Your task to perform on an android device: How big is the universe? Image 0: 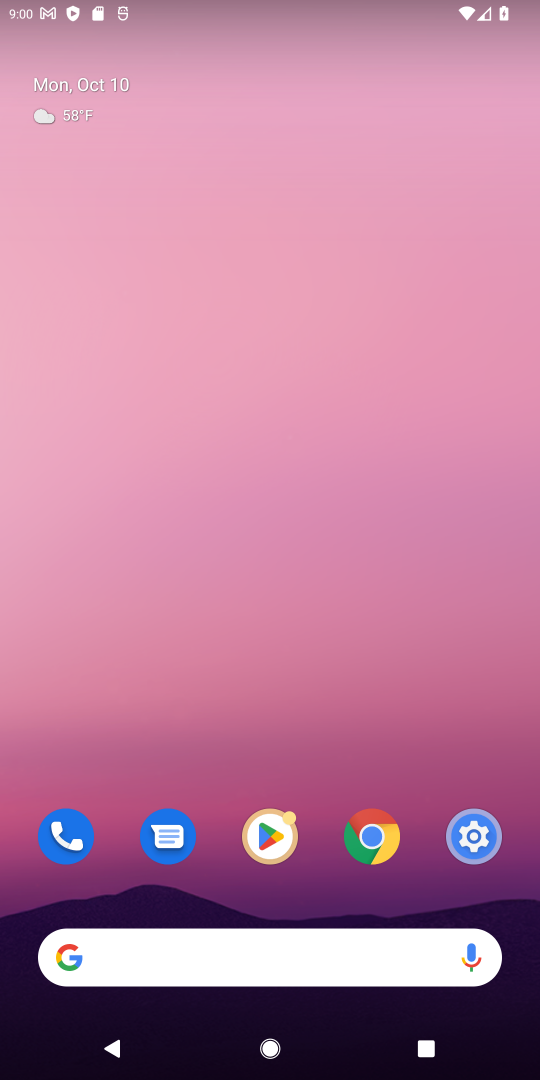
Step 0: drag from (295, 910) to (299, 160)
Your task to perform on an android device: How big is the universe? Image 1: 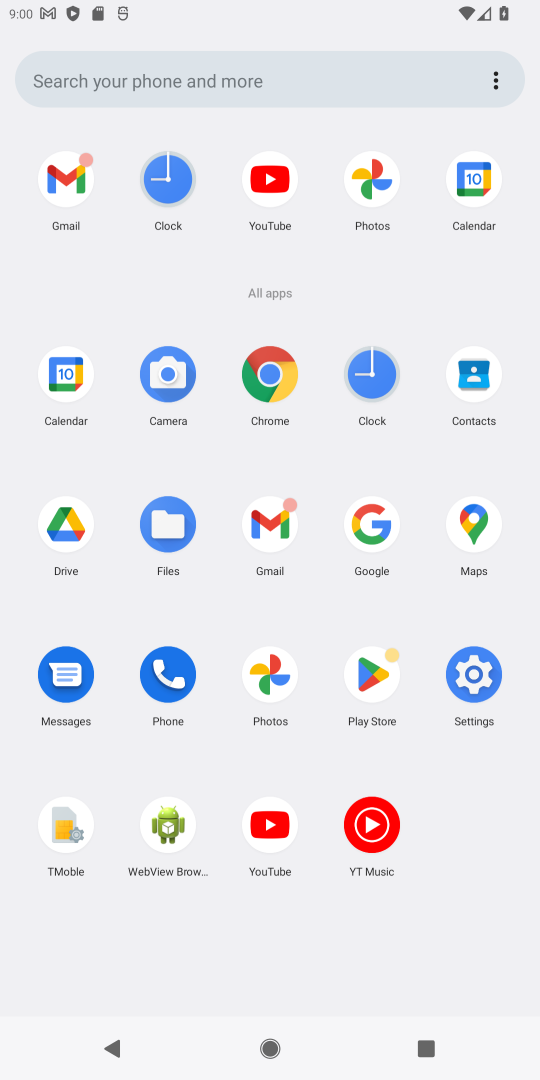
Step 1: drag from (289, 938) to (320, 155)
Your task to perform on an android device: How big is the universe? Image 2: 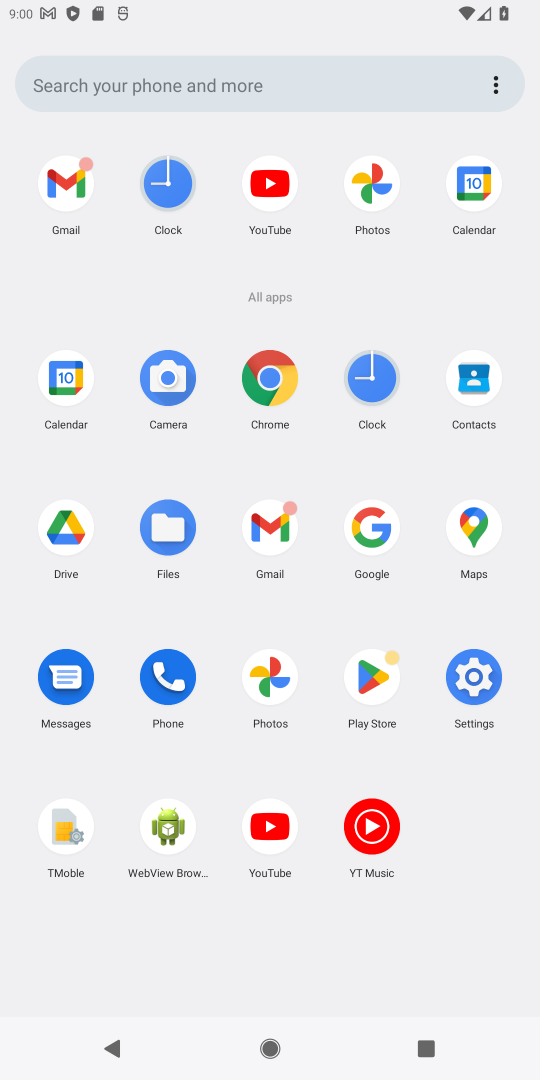
Step 2: click (365, 528)
Your task to perform on an android device: How big is the universe? Image 3: 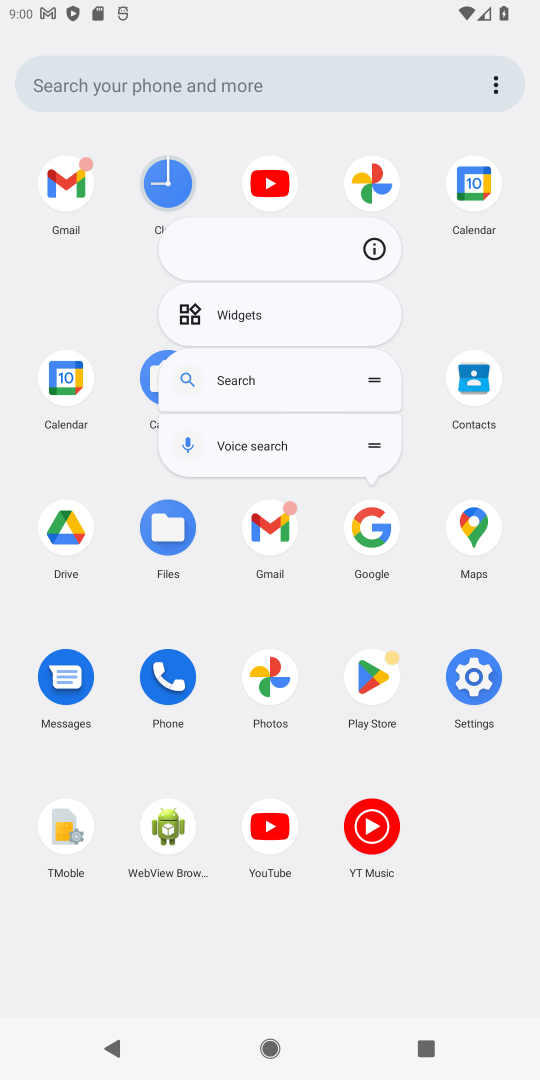
Step 3: click (379, 514)
Your task to perform on an android device: How big is the universe? Image 4: 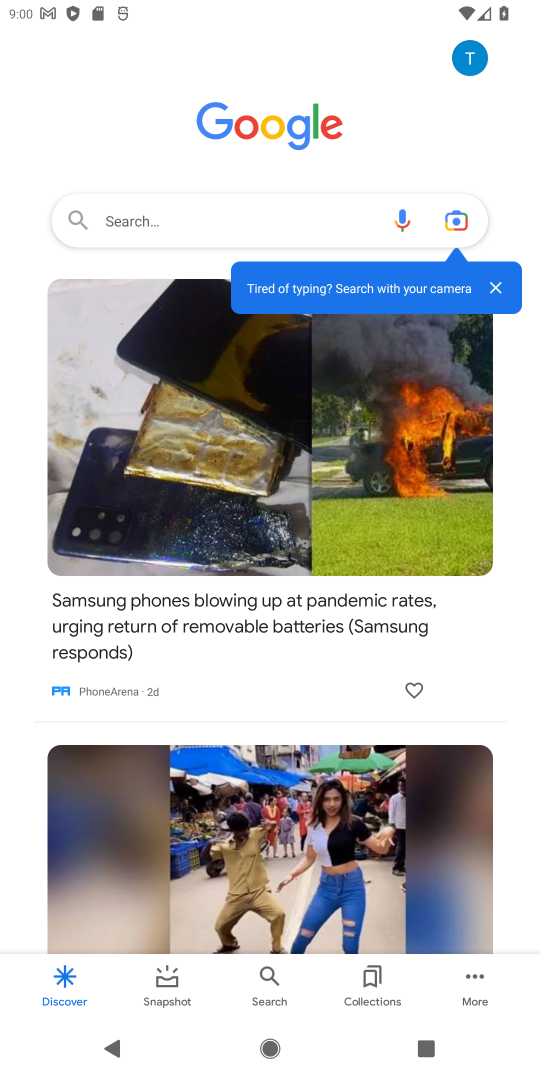
Step 4: click (216, 215)
Your task to perform on an android device: How big is the universe? Image 5: 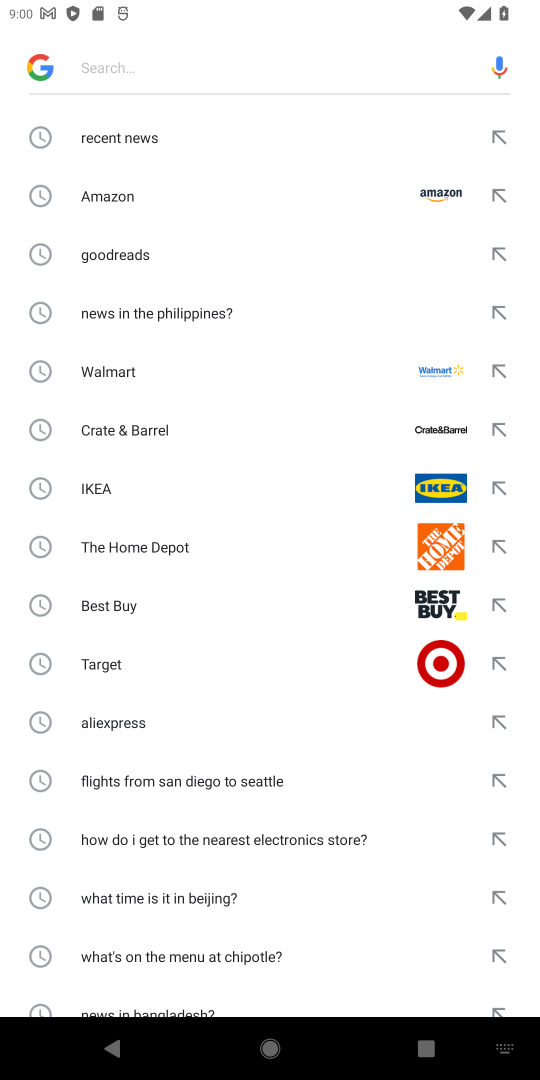
Step 5: type "How big is the universe"
Your task to perform on an android device: How big is the universe? Image 6: 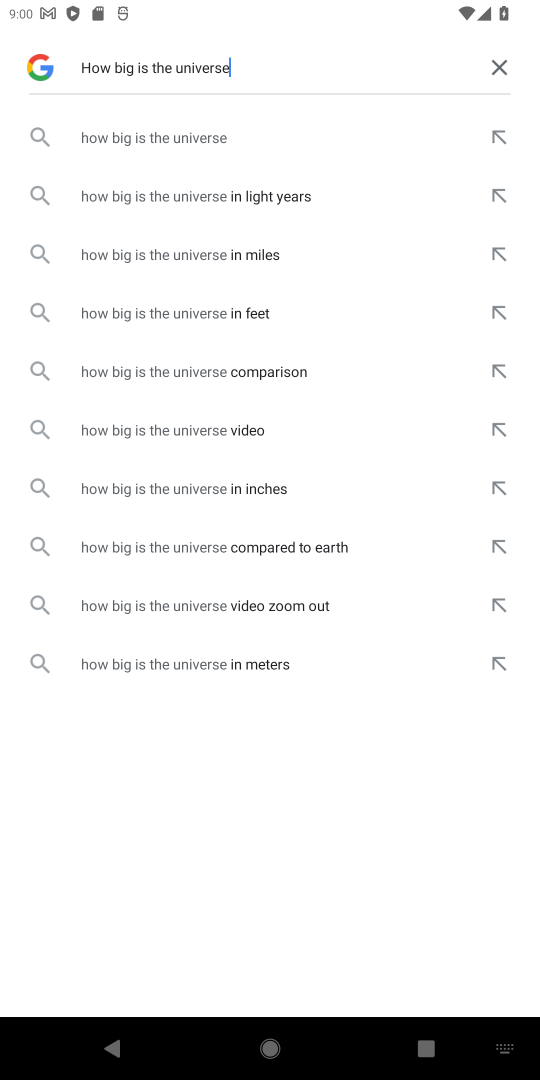
Step 6: click (178, 135)
Your task to perform on an android device: How big is the universe? Image 7: 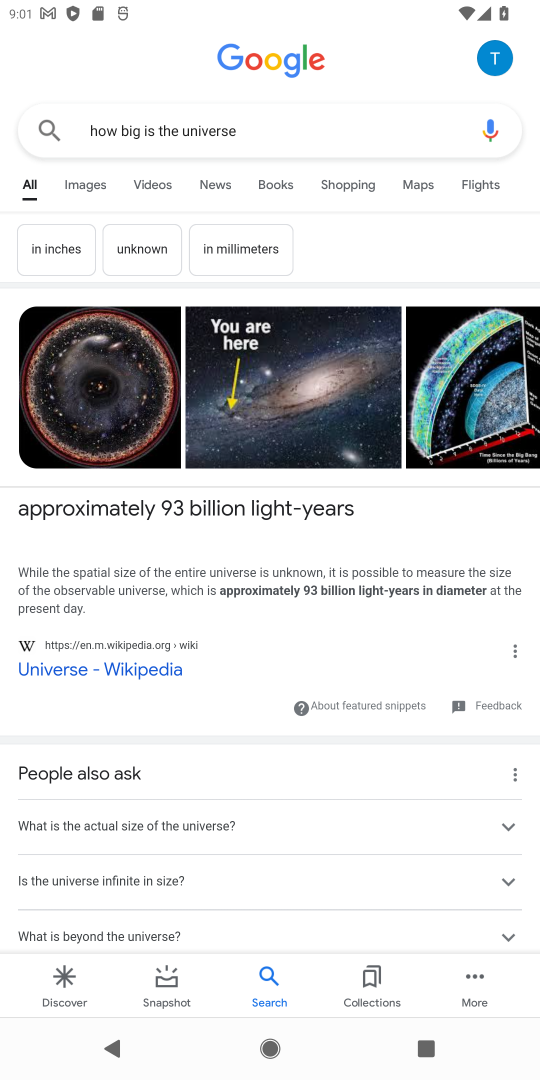
Step 7: task complete